Your task to perform on an android device: Open internet settings Image 0: 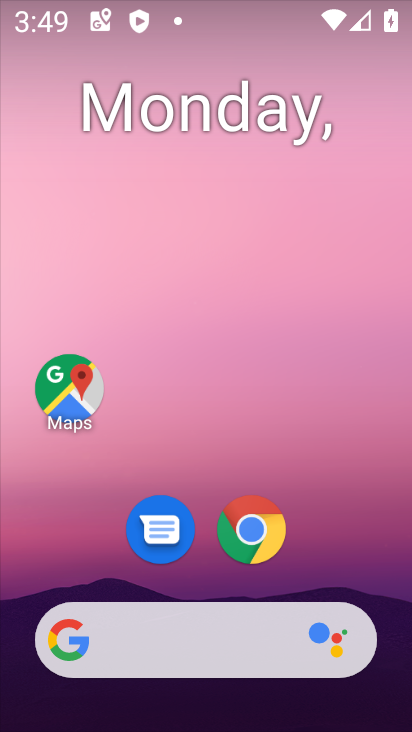
Step 0: drag from (213, 712) to (205, 217)
Your task to perform on an android device: Open internet settings Image 1: 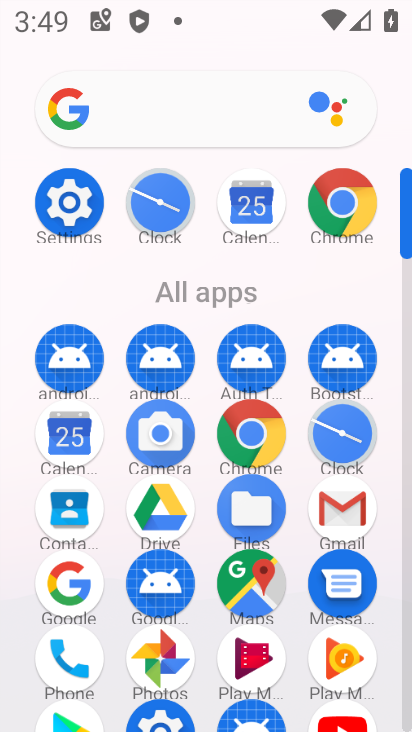
Step 1: click (60, 212)
Your task to perform on an android device: Open internet settings Image 2: 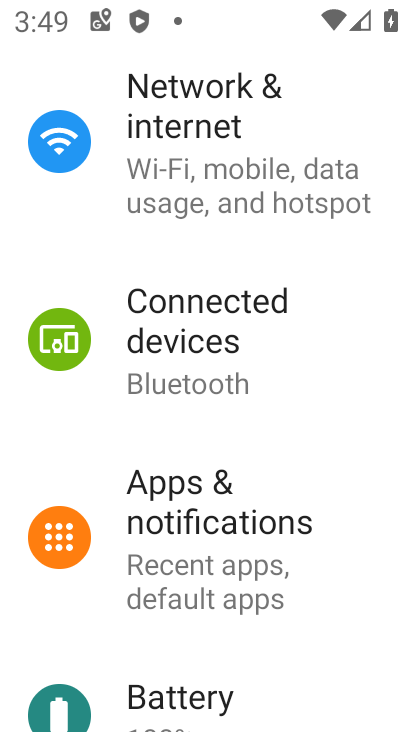
Step 2: click (191, 146)
Your task to perform on an android device: Open internet settings Image 3: 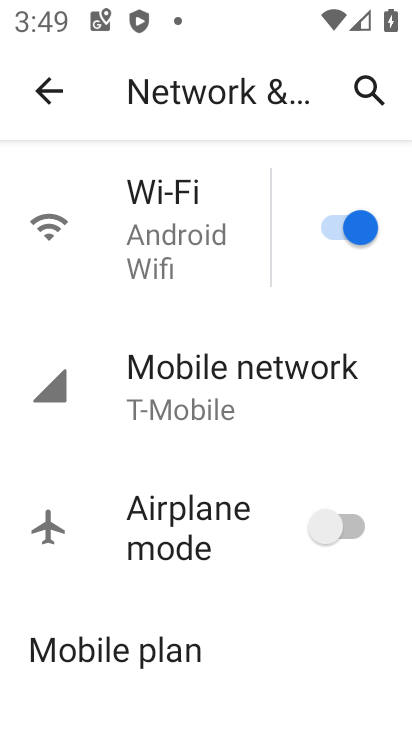
Step 3: task complete